Your task to perform on an android device: Open Maps and search for coffee Image 0: 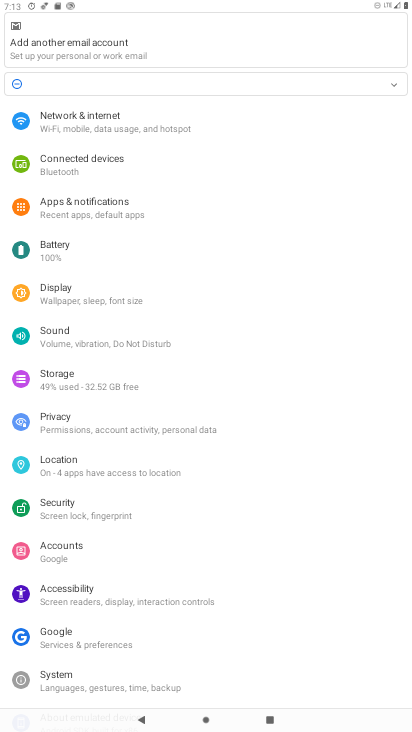
Step 0: press home button
Your task to perform on an android device: Open Maps and search for coffee Image 1: 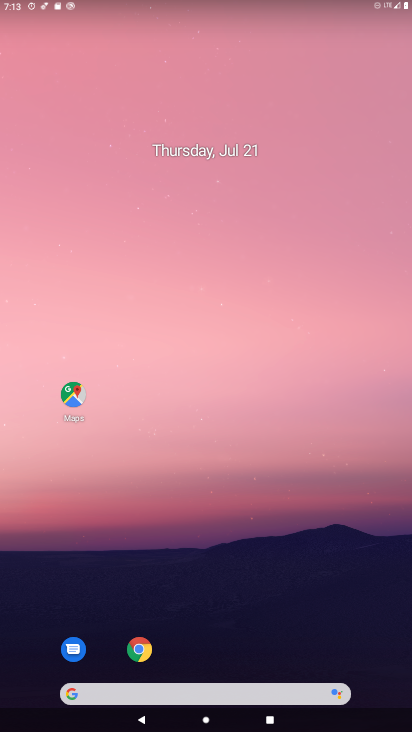
Step 1: drag from (354, 623) to (145, 0)
Your task to perform on an android device: Open Maps and search for coffee Image 2: 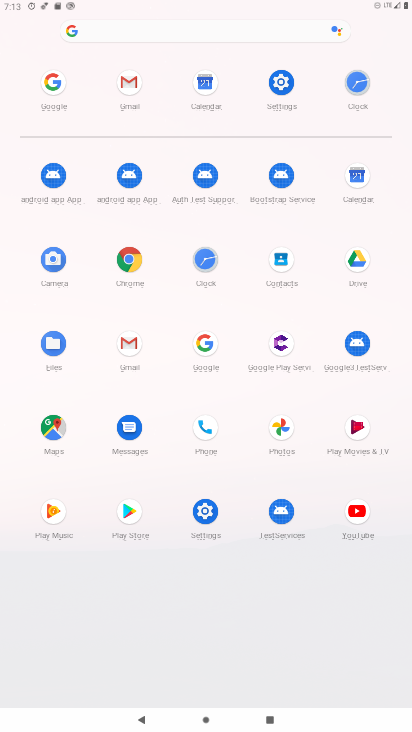
Step 2: click (52, 421)
Your task to perform on an android device: Open Maps and search for coffee Image 3: 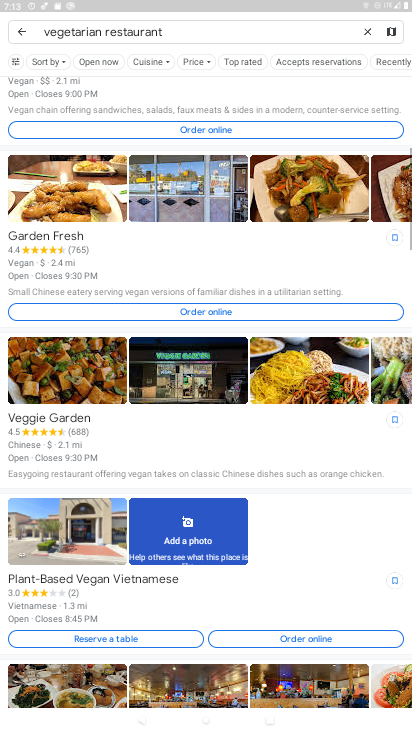
Step 3: click (362, 30)
Your task to perform on an android device: Open Maps and search for coffee Image 4: 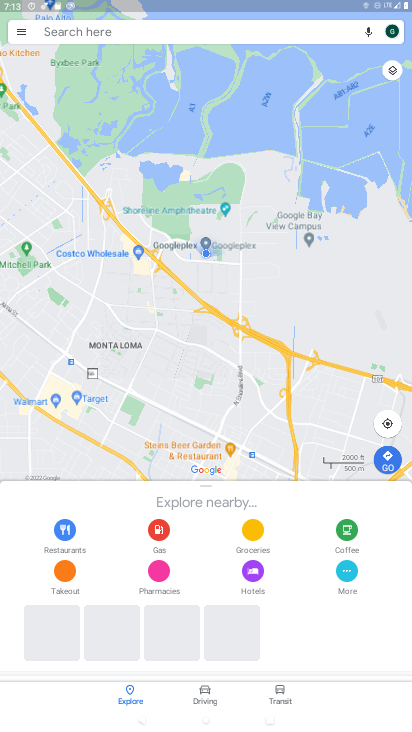
Step 4: click (139, 34)
Your task to perform on an android device: Open Maps and search for coffee Image 5: 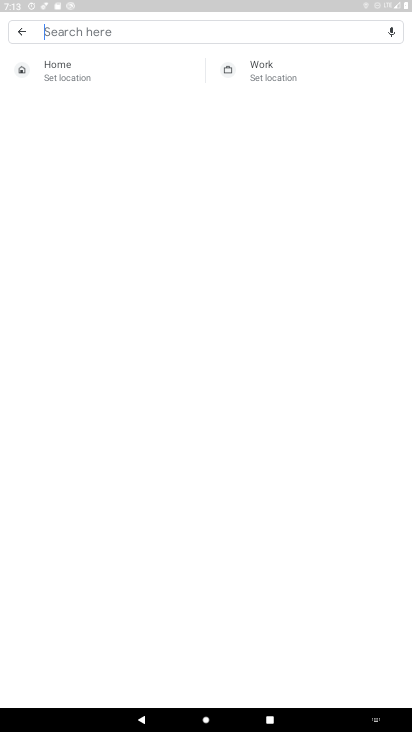
Step 5: type "coffee"
Your task to perform on an android device: Open Maps and search for coffee Image 6: 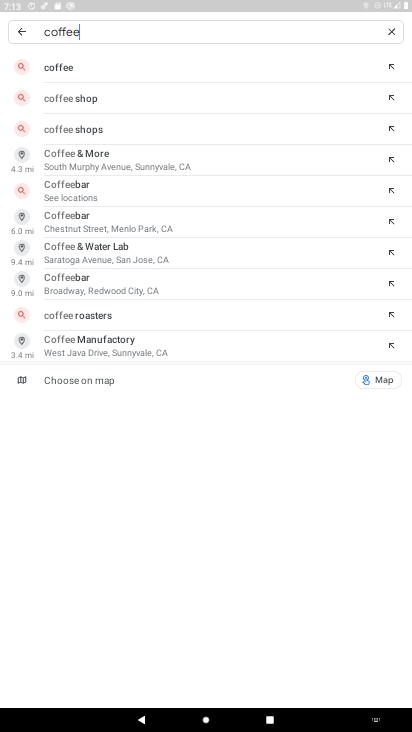
Step 6: click (84, 72)
Your task to perform on an android device: Open Maps and search for coffee Image 7: 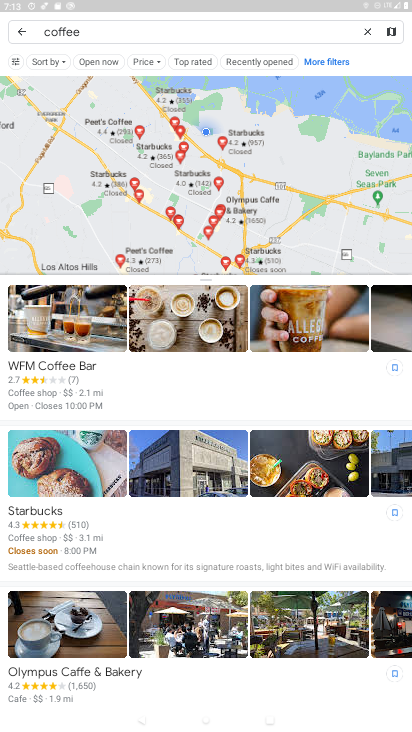
Step 7: task complete